Your task to perform on an android device: Find the nearest electronics store that's open tomorrow Image 0: 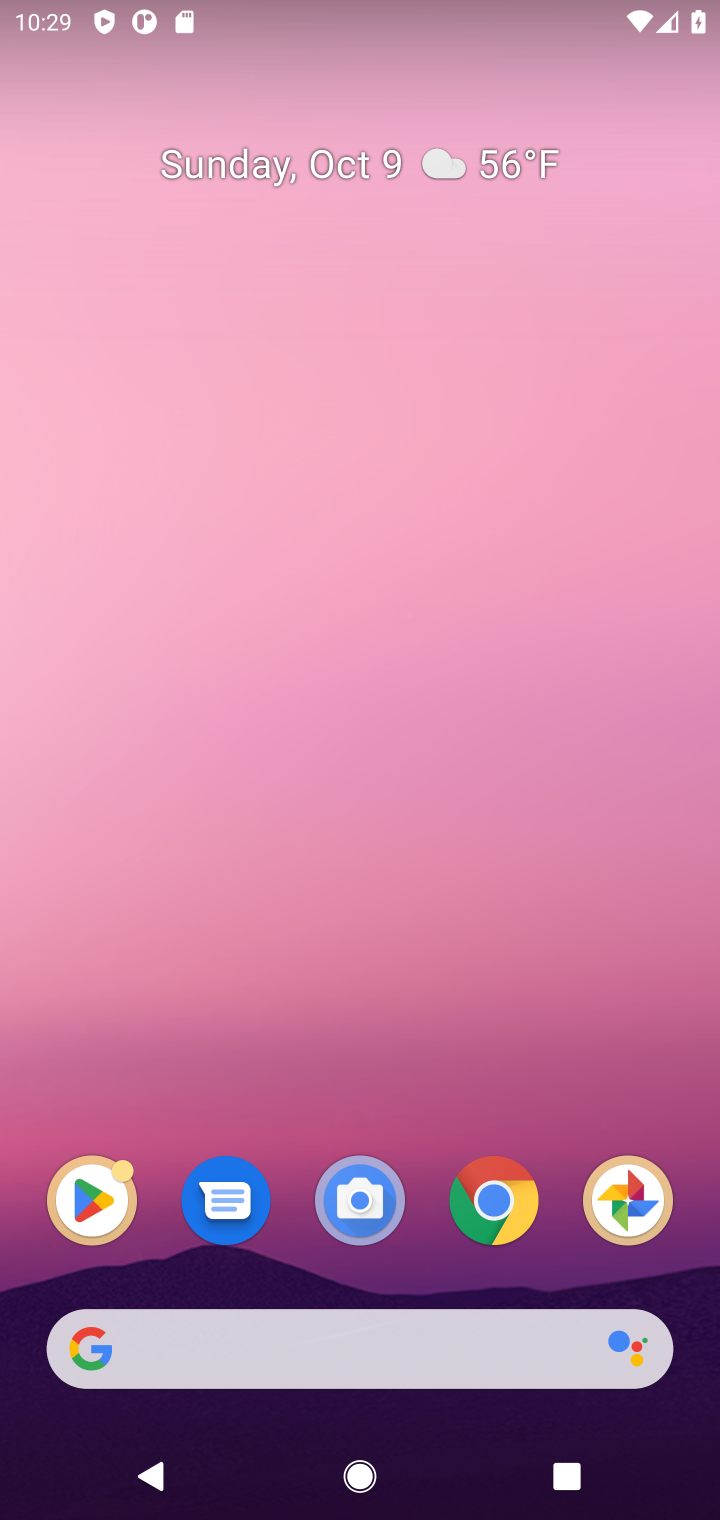
Step 0: click (477, 1216)
Your task to perform on an android device: Find the nearest electronics store that's open tomorrow Image 1: 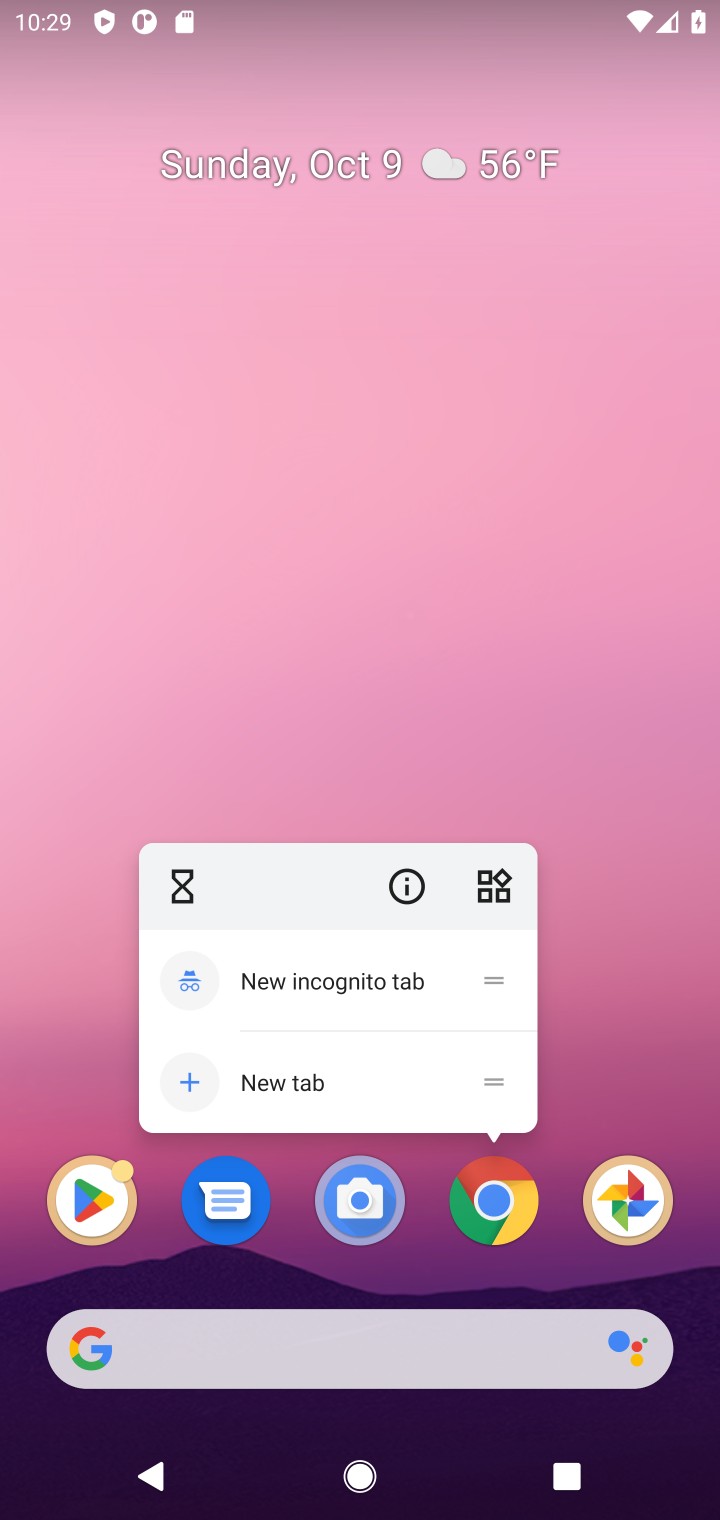
Step 1: click (477, 1216)
Your task to perform on an android device: Find the nearest electronics store that's open tomorrow Image 2: 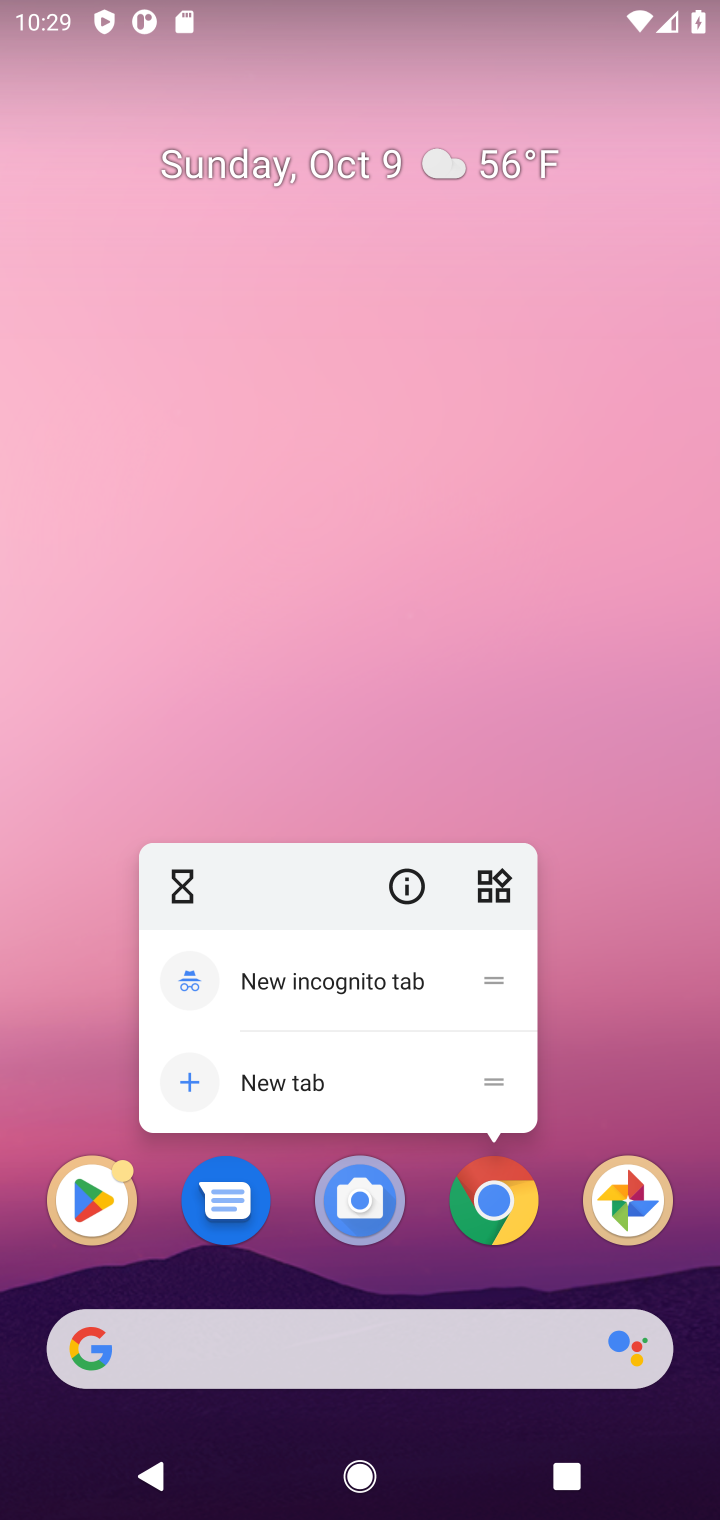
Step 2: click (486, 1194)
Your task to perform on an android device: Find the nearest electronics store that's open tomorrow Image 3: 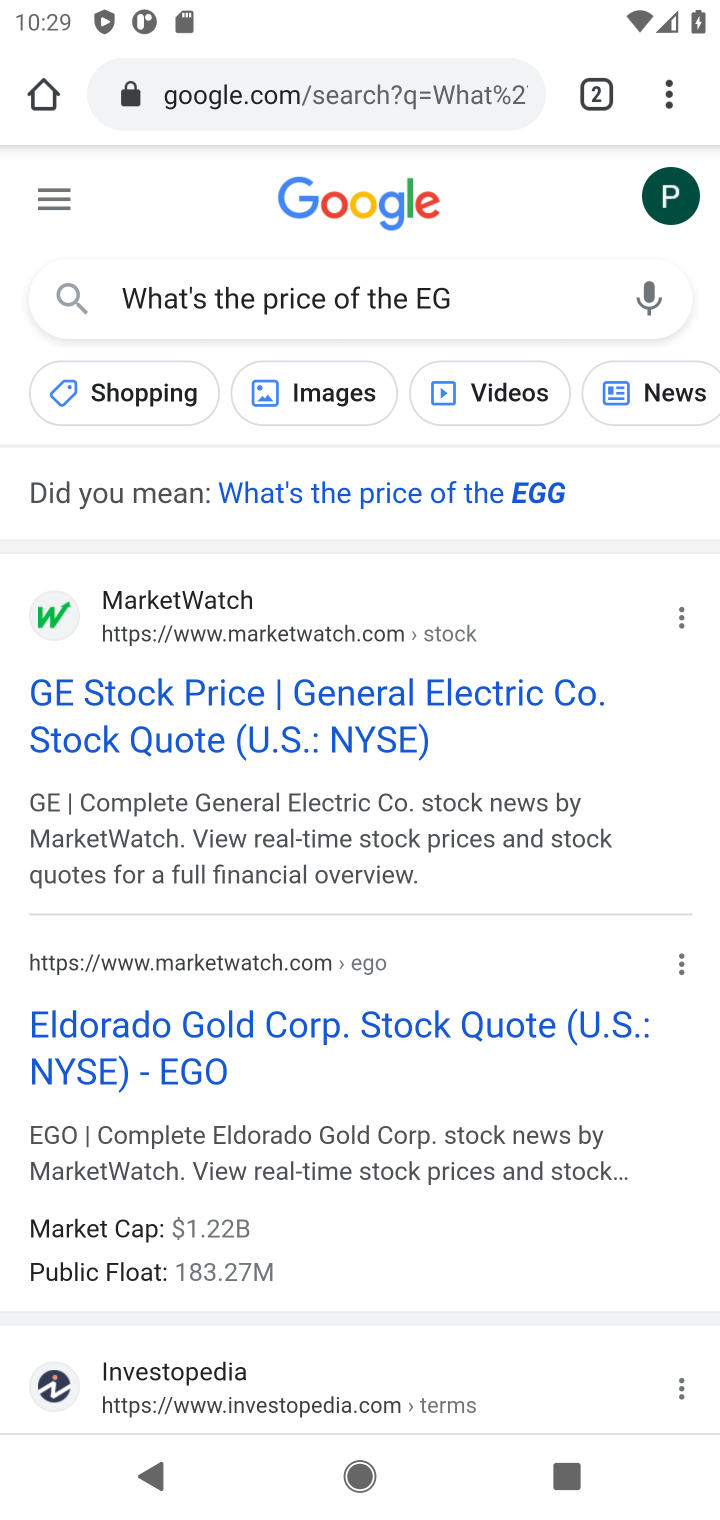
Step 3: click (509, 302)
Your task to perform on an android device: Find the nearest electronics store that's open tomorrow Image 4: 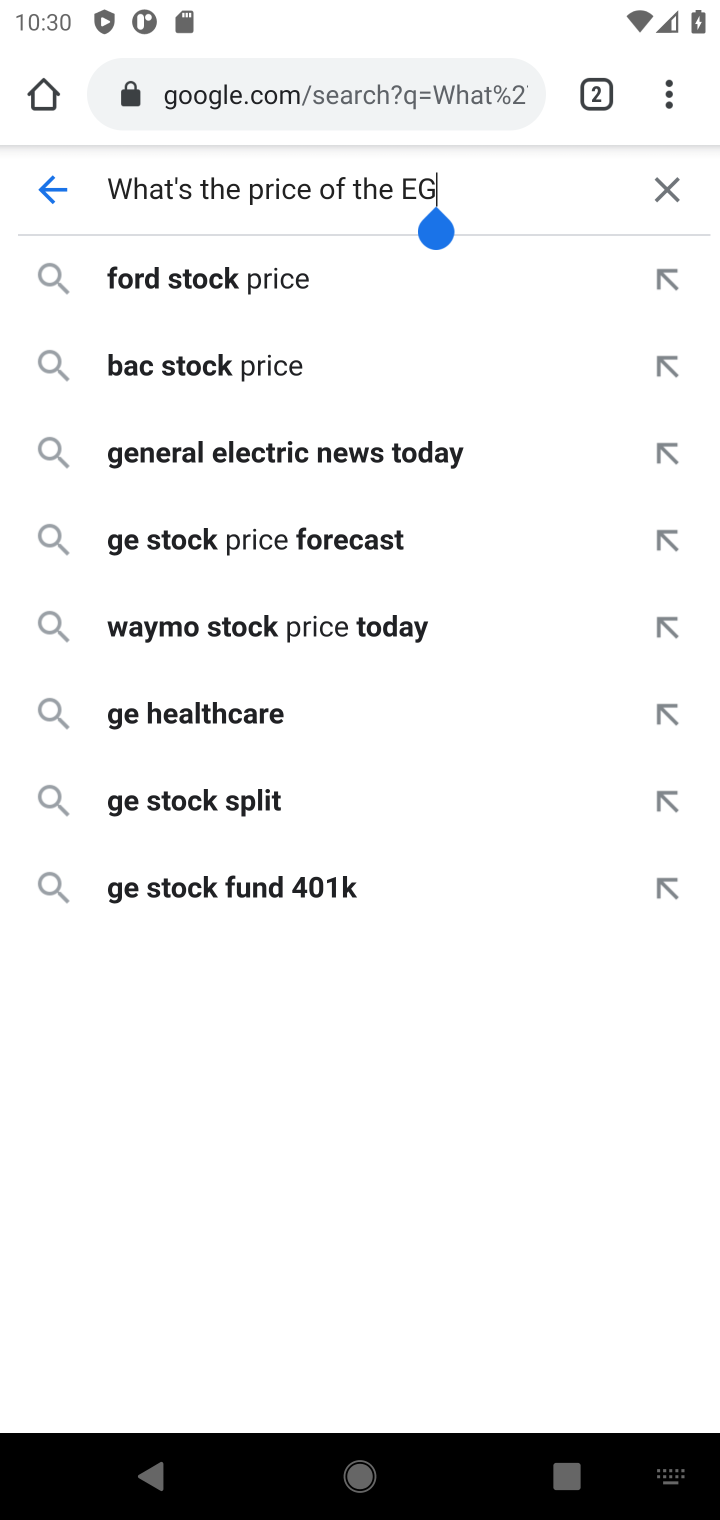
Step 4: click (655, 199)
Your task to perform on an android device: Find the nearest electronics store that's open tomorrow Image 5: 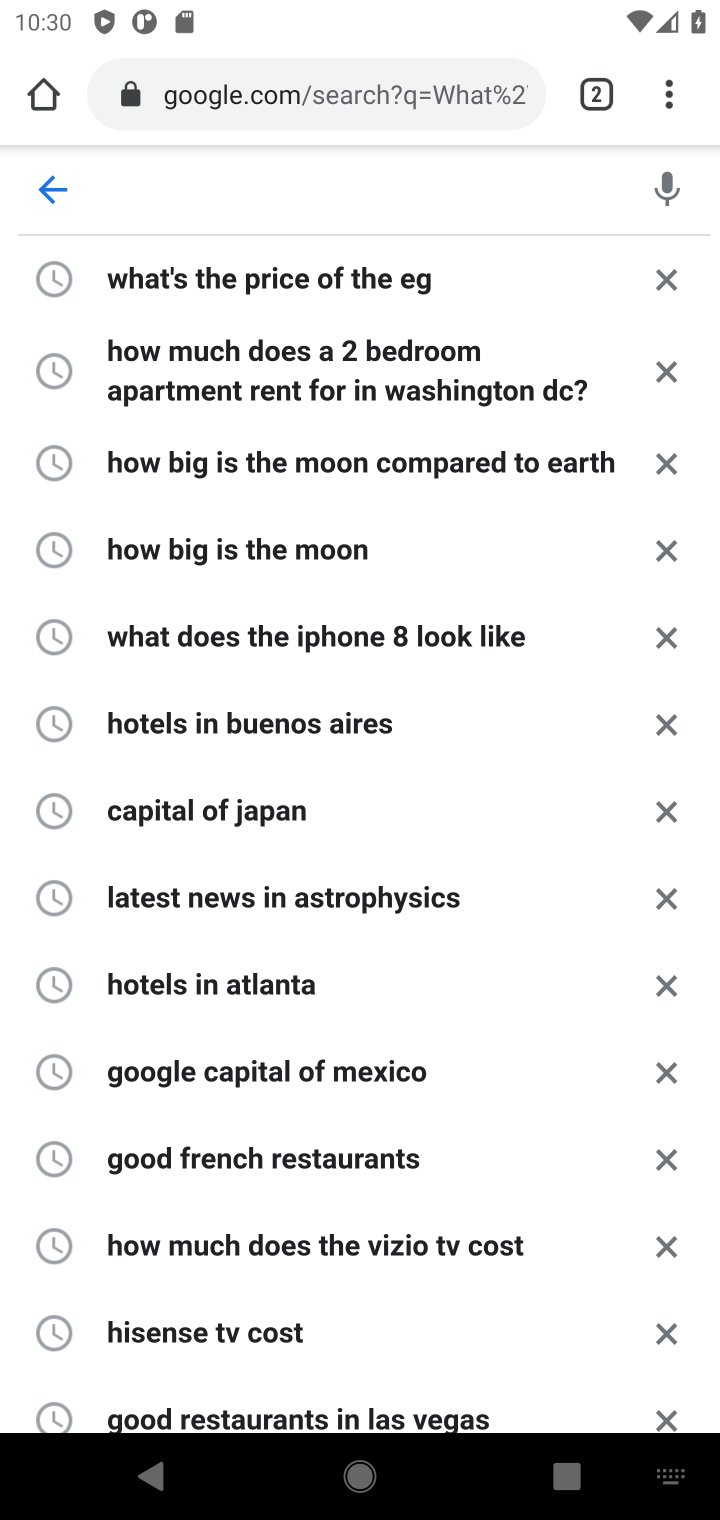
Step 5: type "nearest electronics store that's open tomorrow"
Your task to perform on an android device: Find the nearest electronics store that's open tomorrow Image 6: 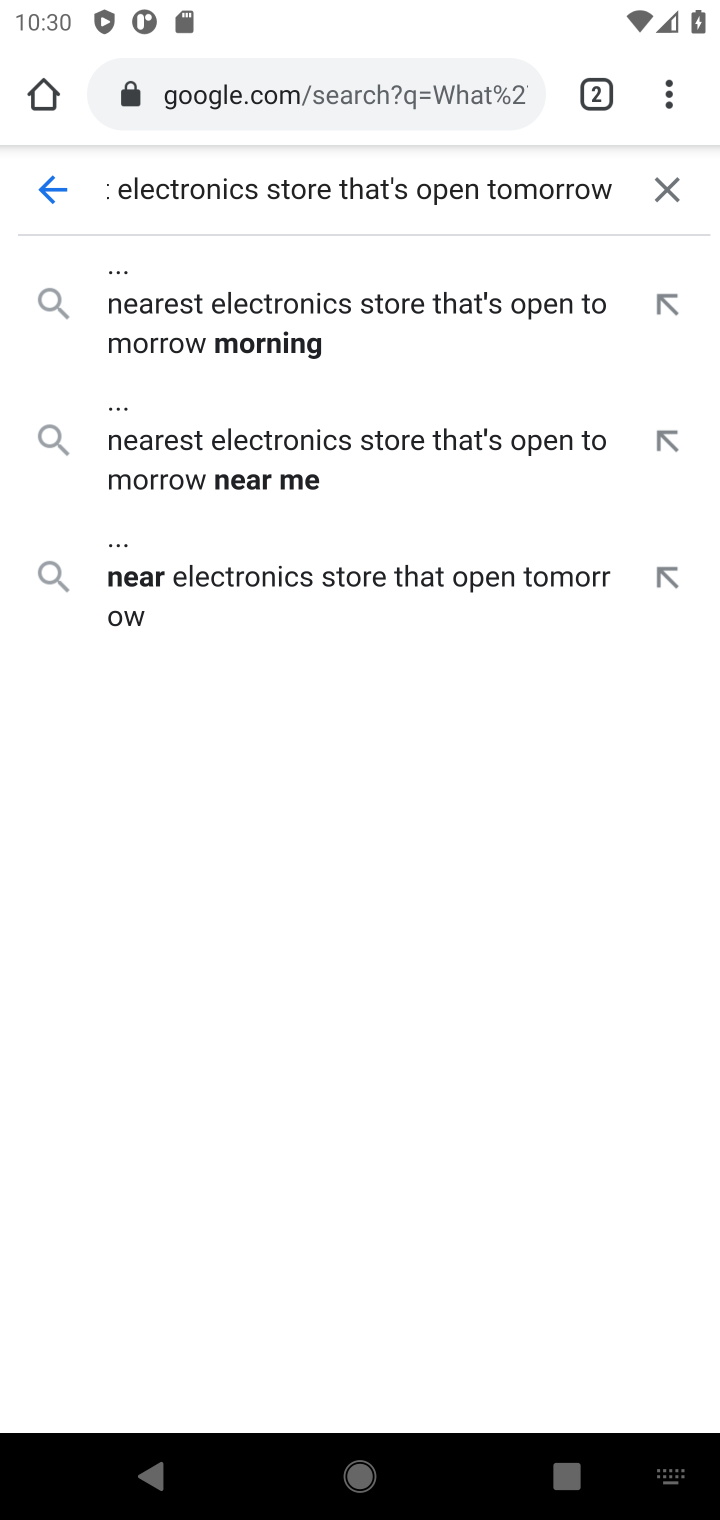
Step 6: press enter
Your task to perform on an android device: Find the nearest electronics store that's open tomorrow Image 7: 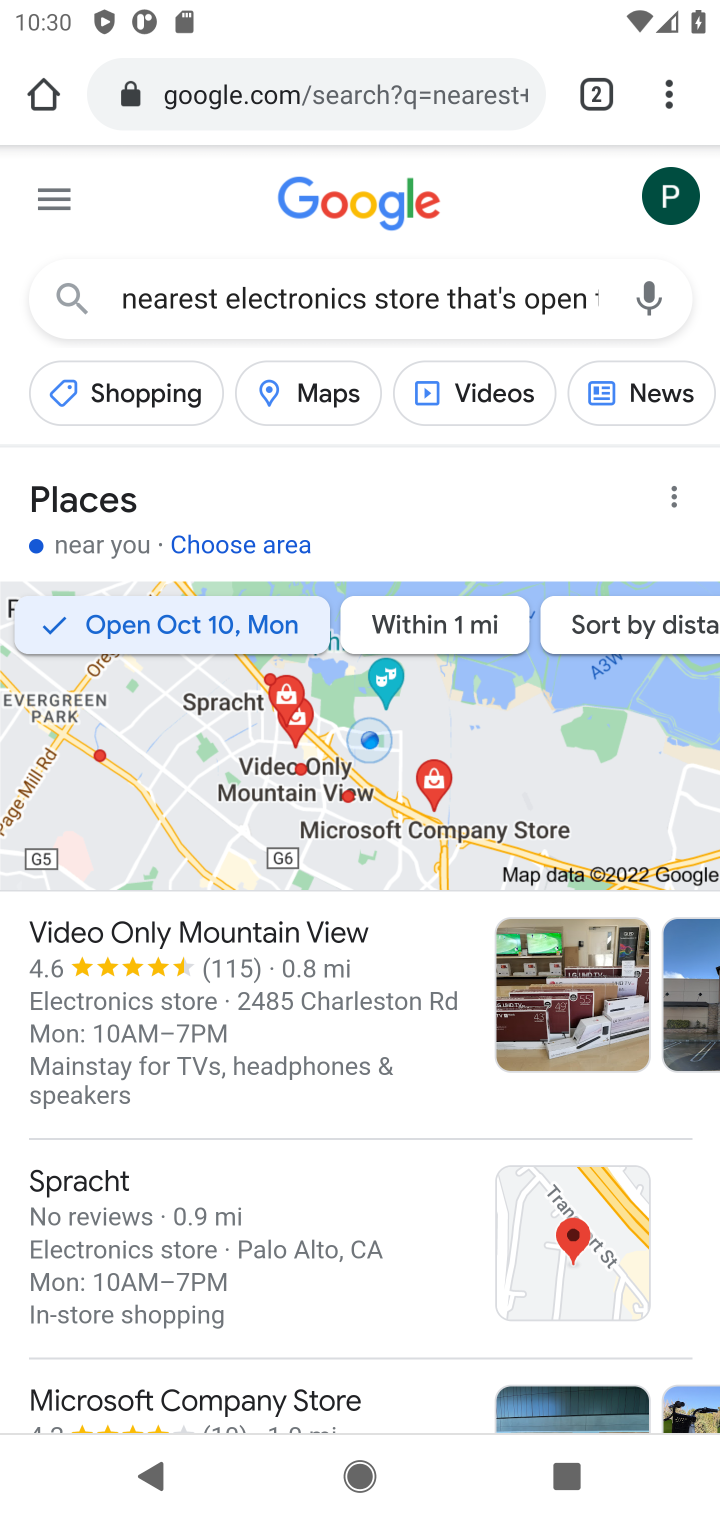
Step 7: task complete